Your task to perform on an android device: open sync settings in chrome Image 0: 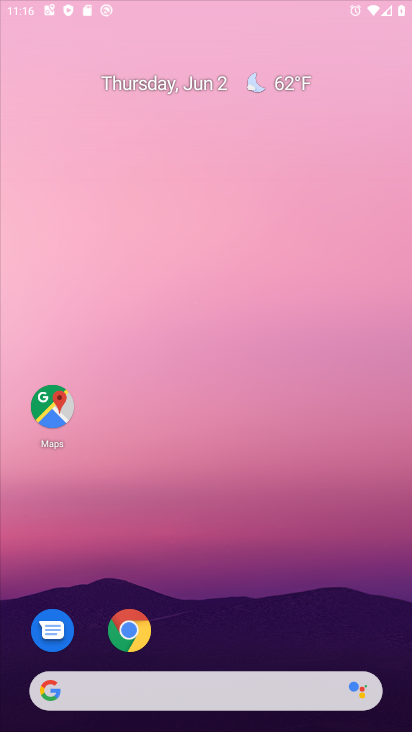
Step 0: press home button
Your task to perform on an android device: open sync settings in chrome Image 1: 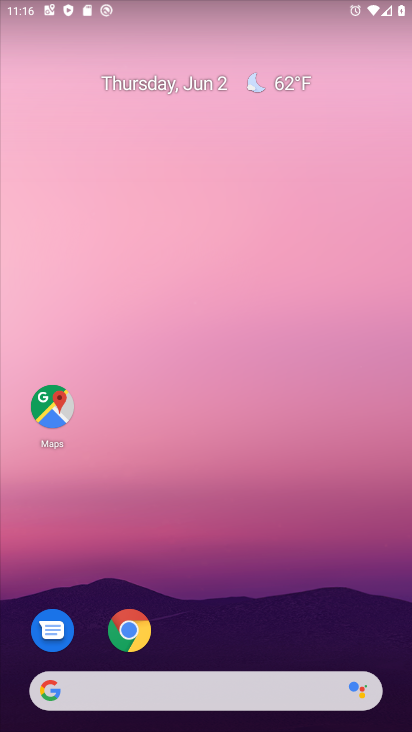
Step 1: click (126, 633)
Your task to perform on an android device: open sync settings in chrome Image 2: 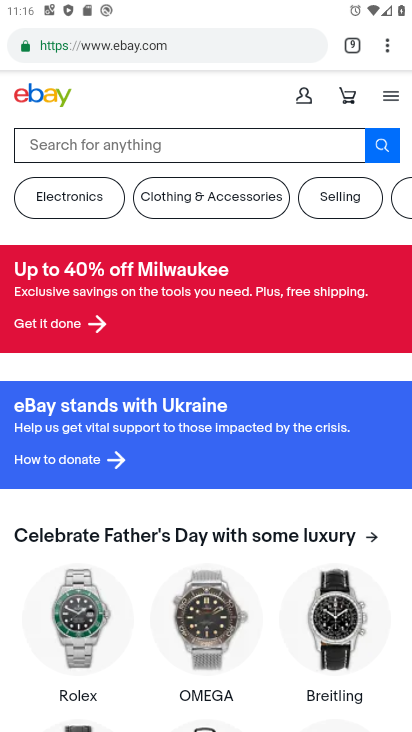
Step 2: drag from (385, 46) to (257, 555)
Your task to perform on an android device: open sync settings in chrome Image 3: 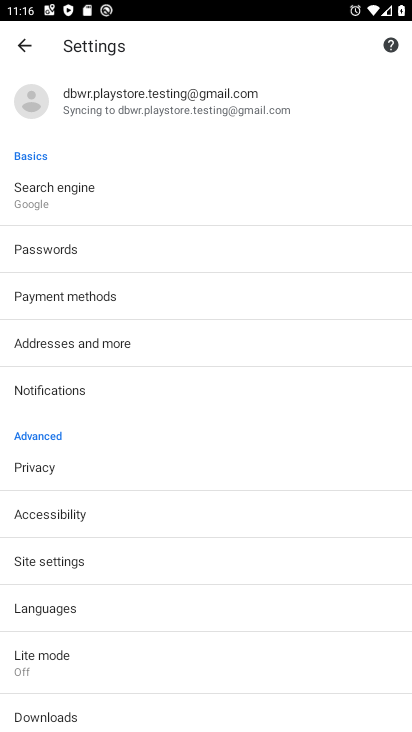
Step 3: click (199, 90)
Your task to perform on an android device: open sync settings in chrome Image 4: 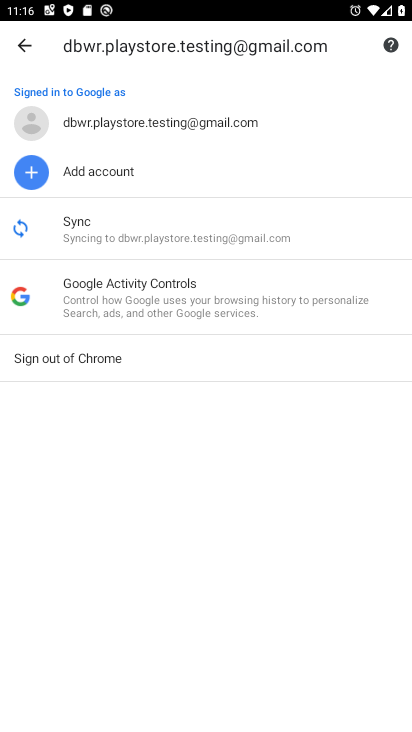
Step 4: click (124, 238)
Your task to perform on an android device: open sync settings in chrome Image 5: 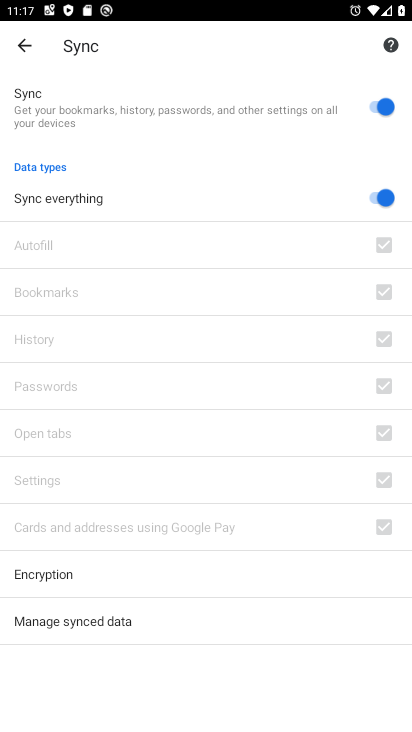
Step 5: task complete